Your task to perform on an android device: turn off picture-in-picture Image 0: 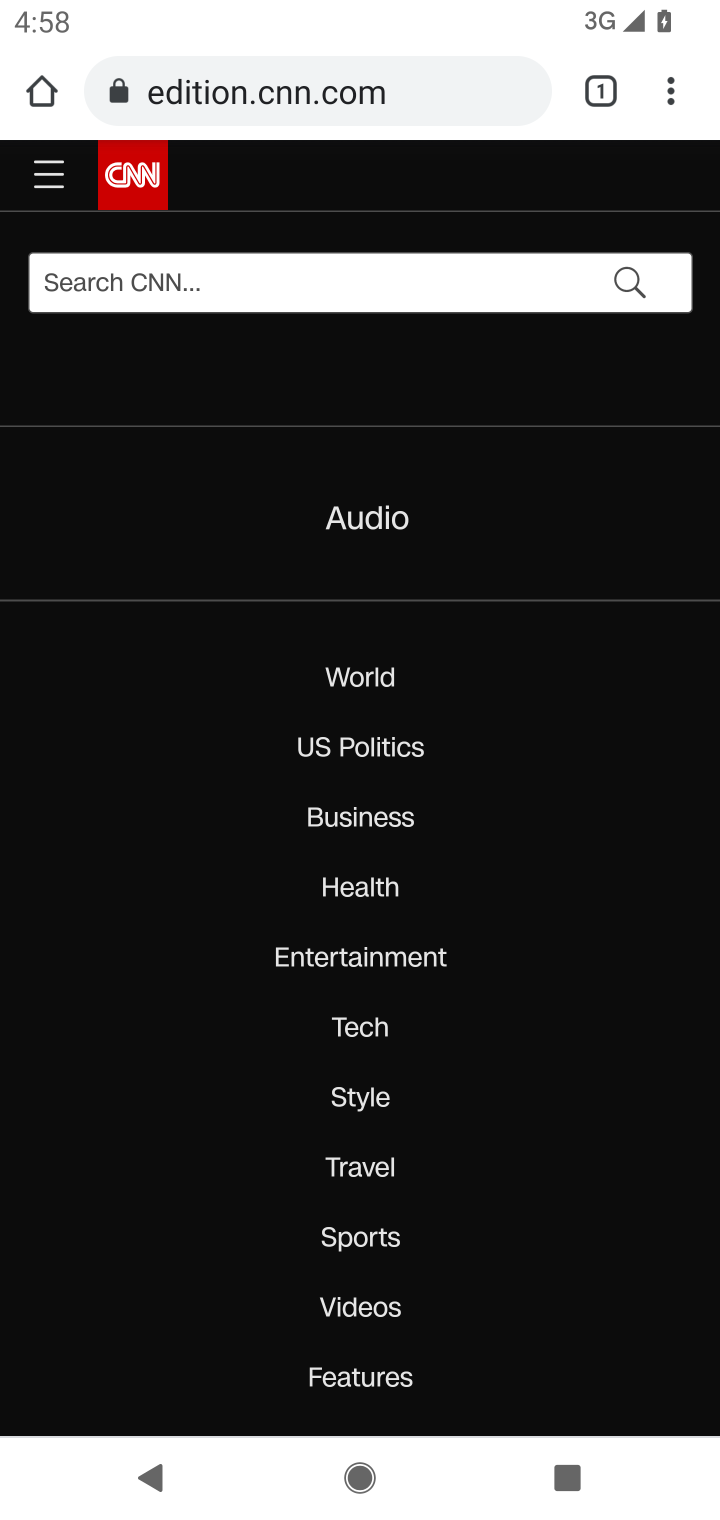
Step 0: press home button
Your task to perform on an android device: turn off picture-in-picture Image 1: 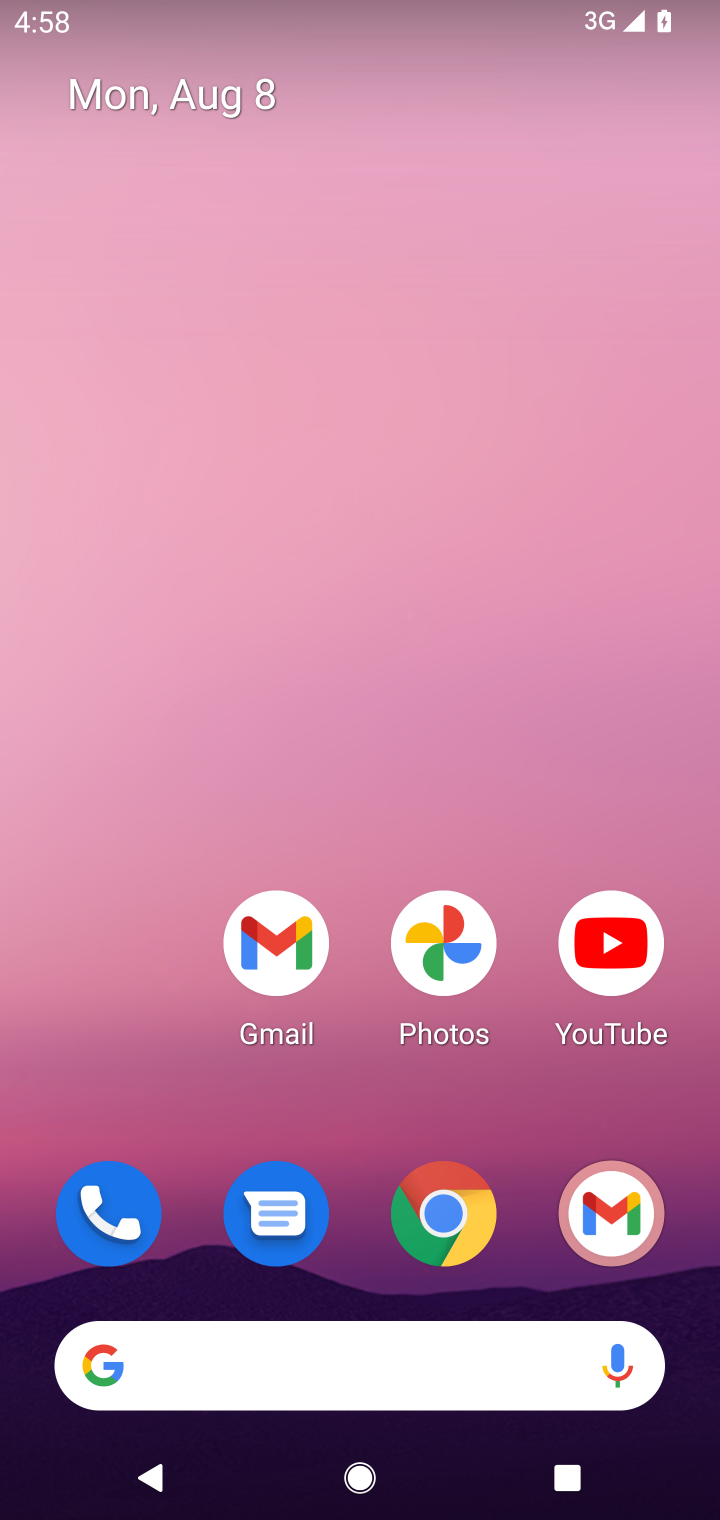
Step 1: click (437, 1238)
Your task to perform on an android device: turn off picture-in-picture Image 2: 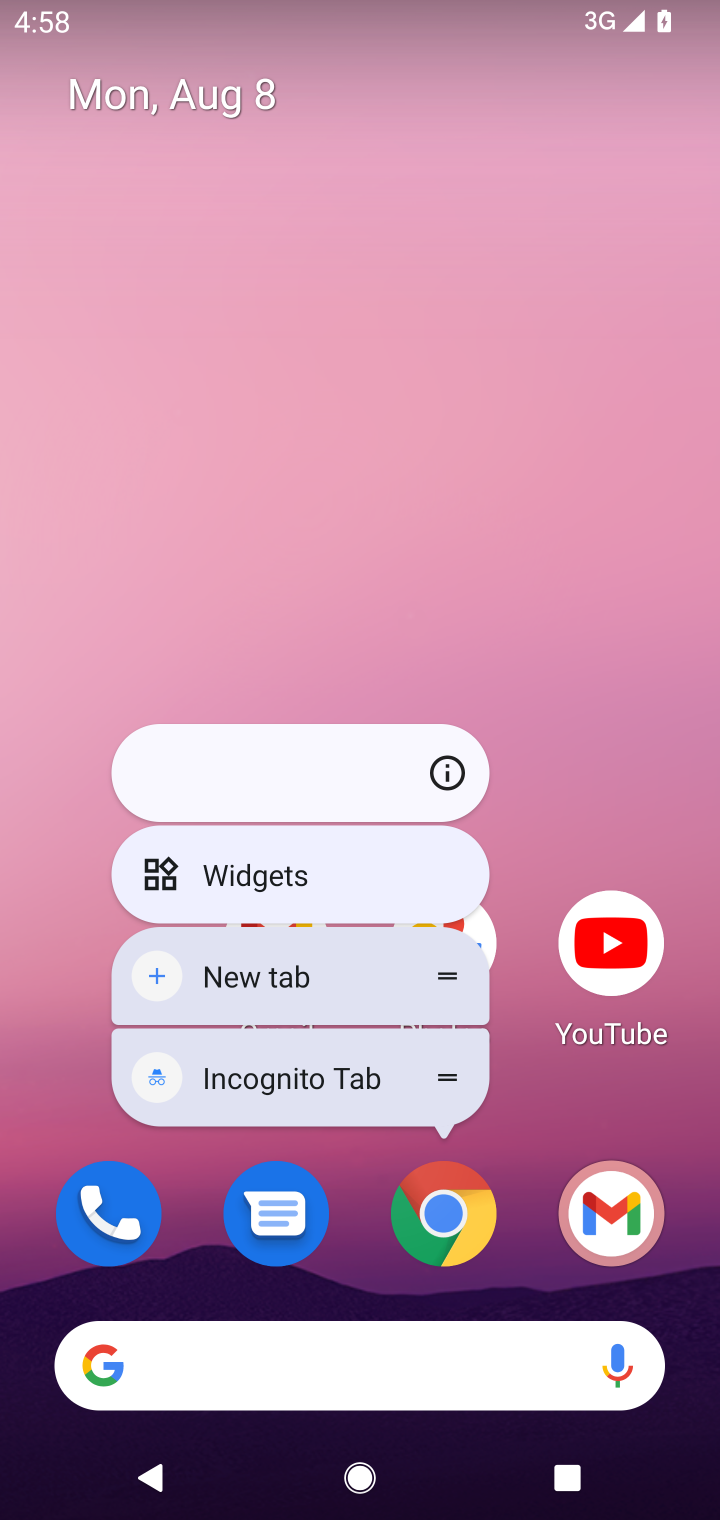
Step 2: click (447, 771)
Your task to perform on an android device: turn off picture-in-picture Image 3: 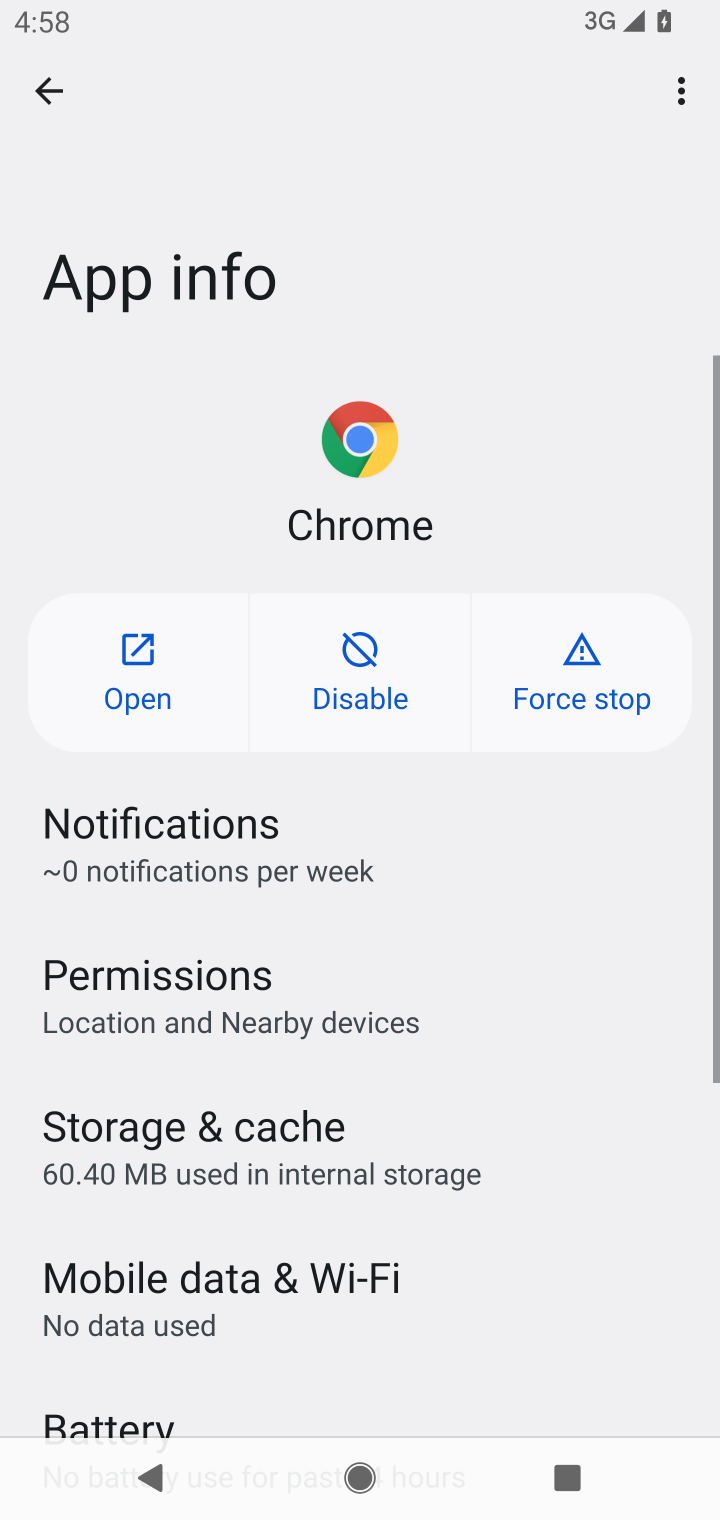
Step 3: drag from (361, 1024) to (299, 259)
Your task to perform on an android device: turn off picture-in-picture Image 4: 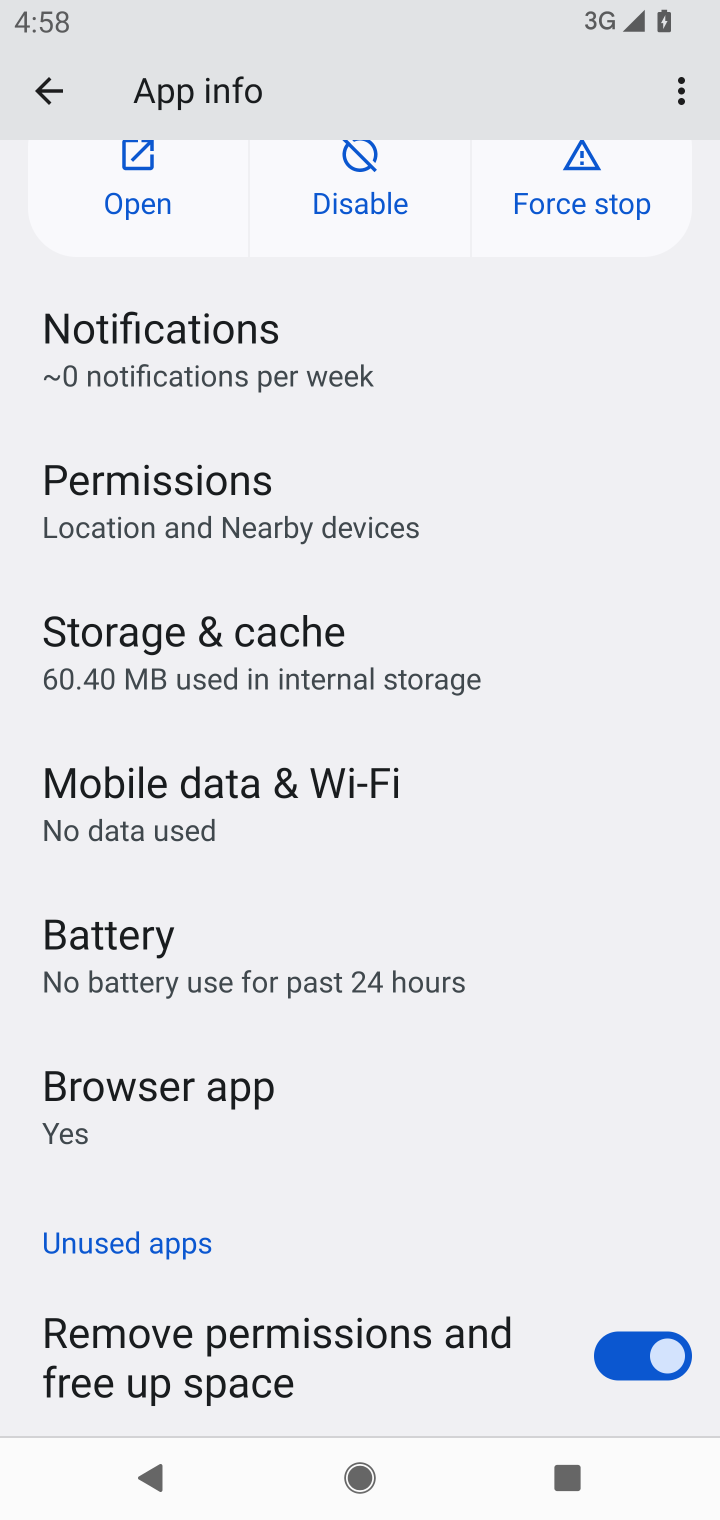
Step 4: drag from (357, 1122) to (271, 549)
Your task to perform on an android device: turn off picture-in-picture Image 5: 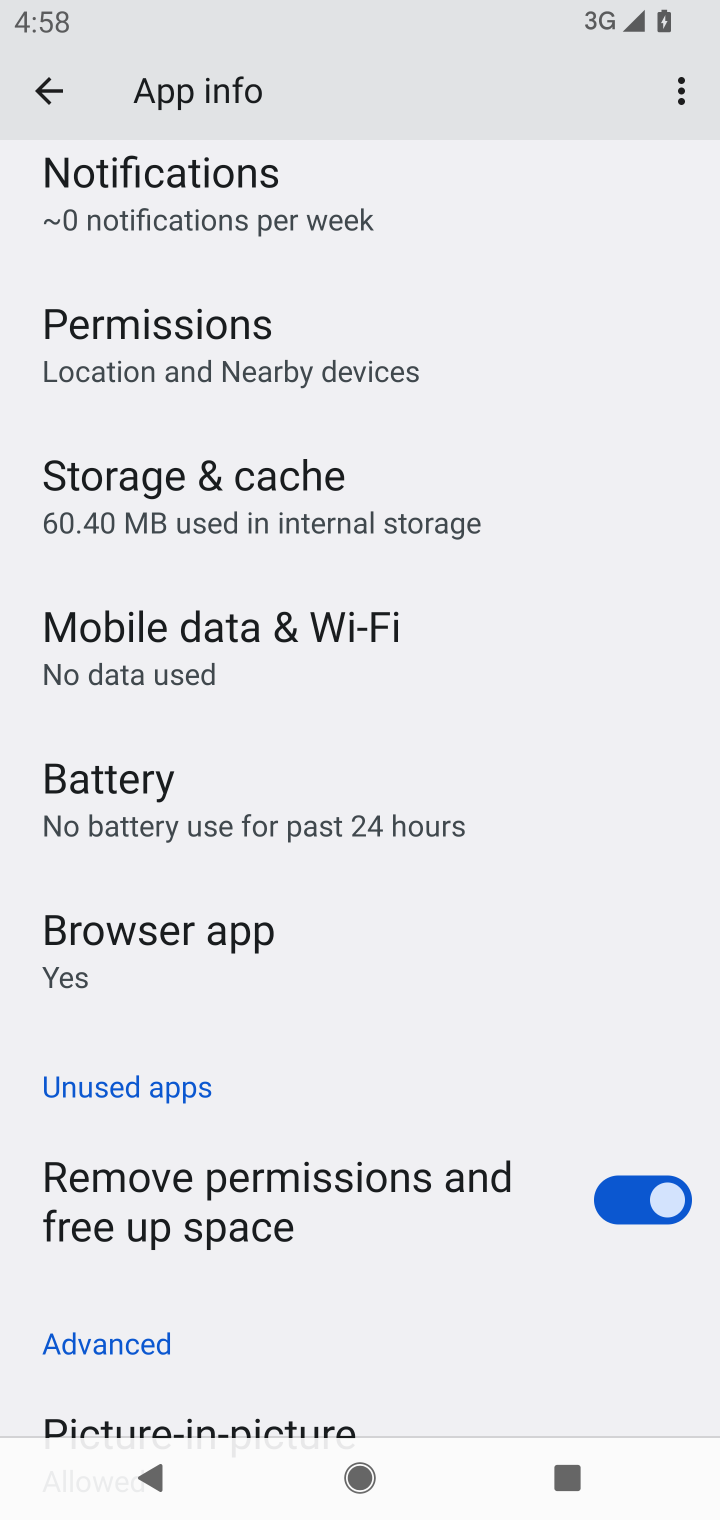
Step 5: drag from (286, 1244) to (265, 969)
Your task to perform on an android device: turn off picture-in-picture Image 6: 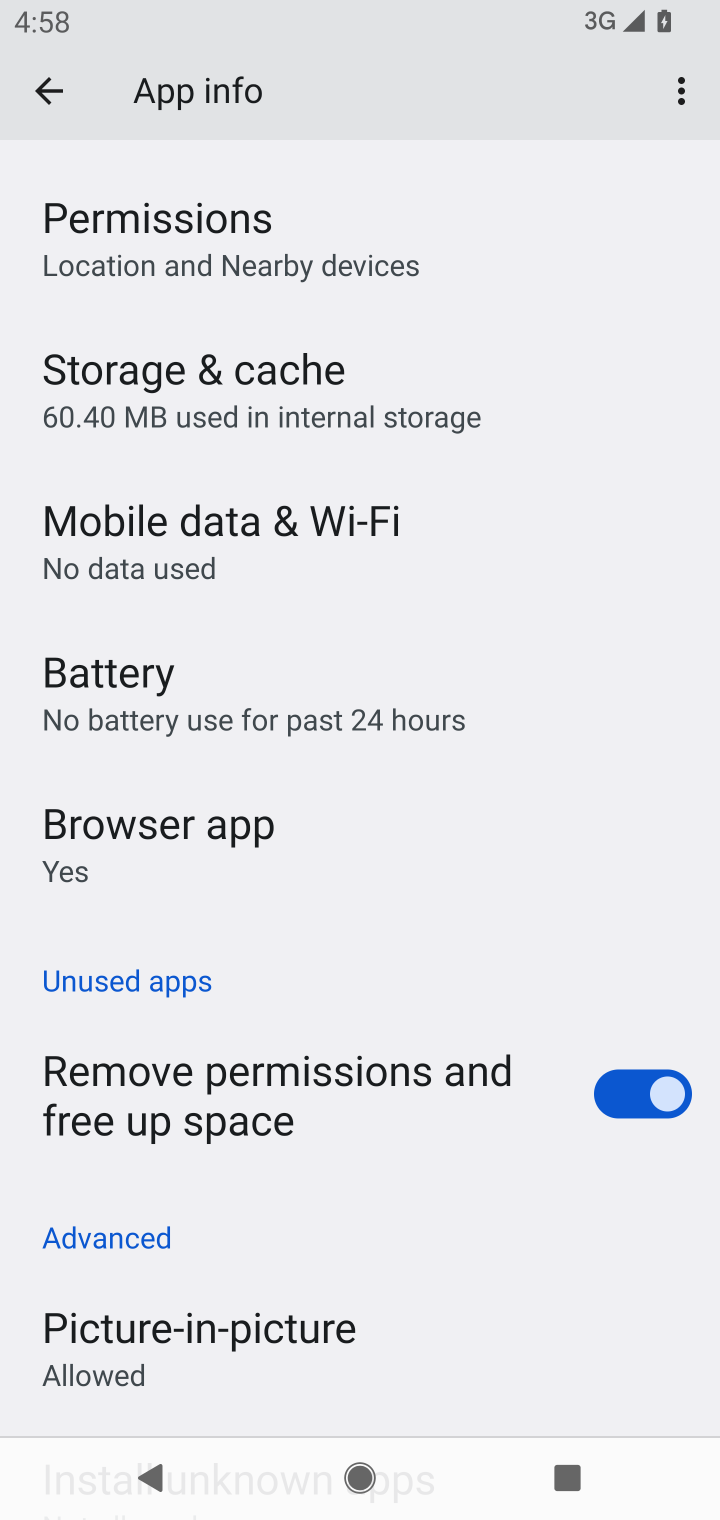
Step 6: click (314, 1360)
Your task to perform on an android device: turn off picture-in-picture Image 7: 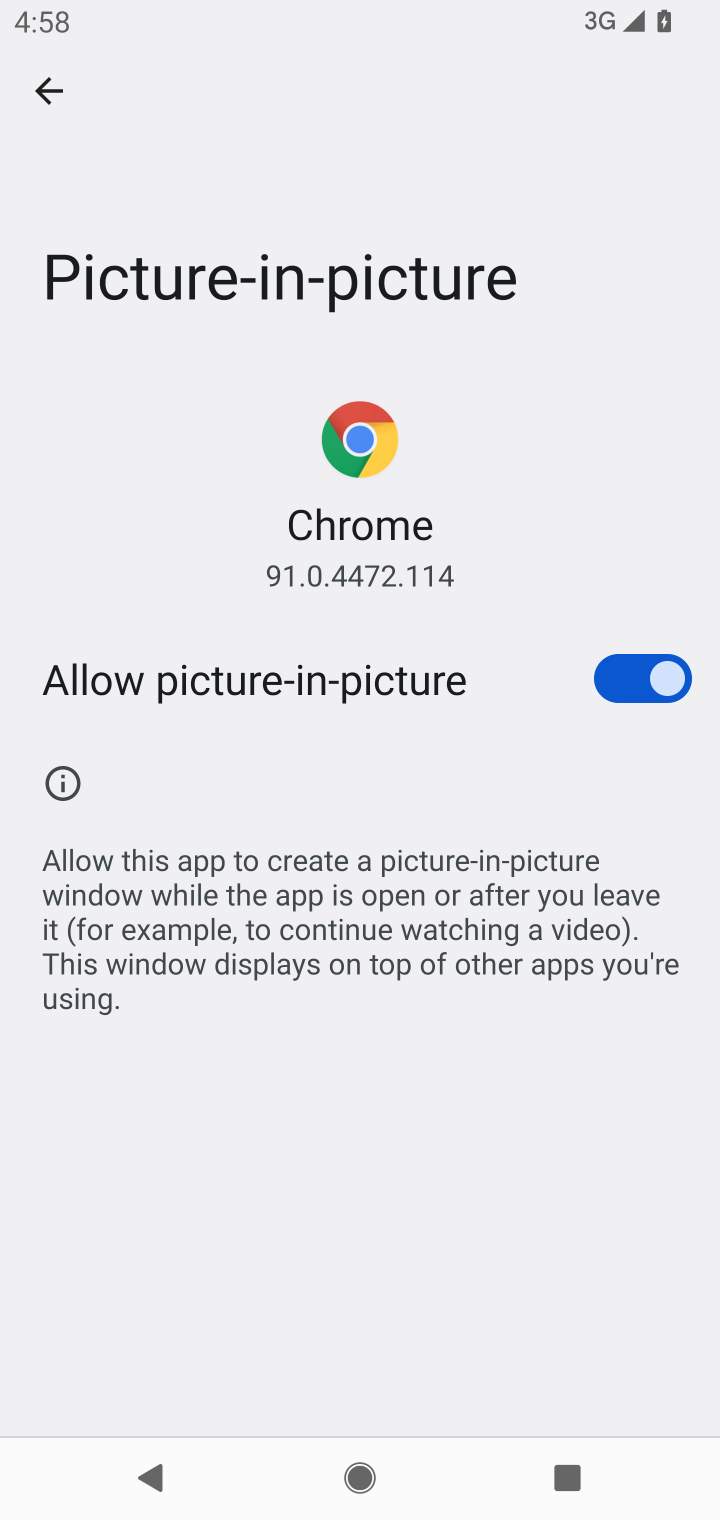
Step 7: click (635, 660)
Your task to perform on an android device: turn off picture-in-picture Image 8: 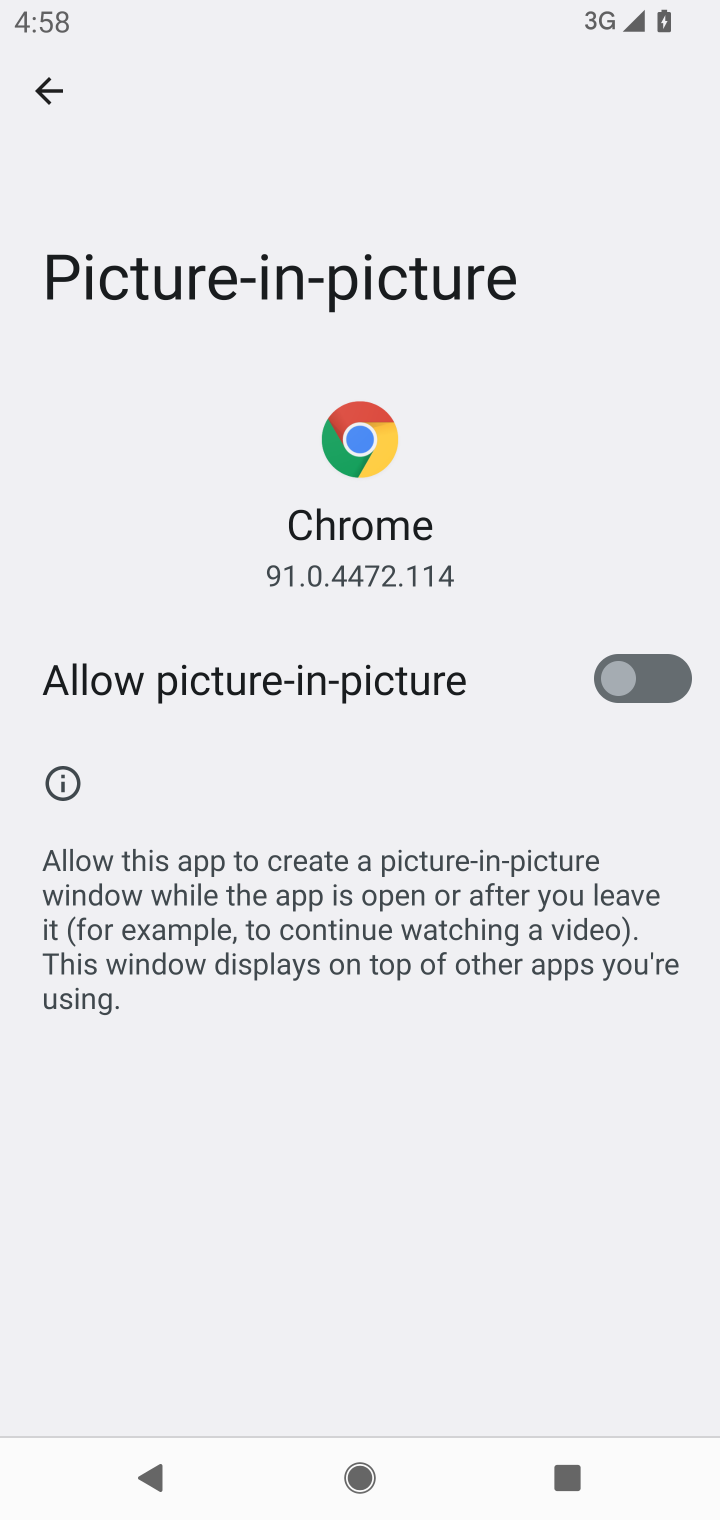
Step 8: task complete